Your task to perform on an android device: read, delete, or share a saved page in the chrome app Image 0: 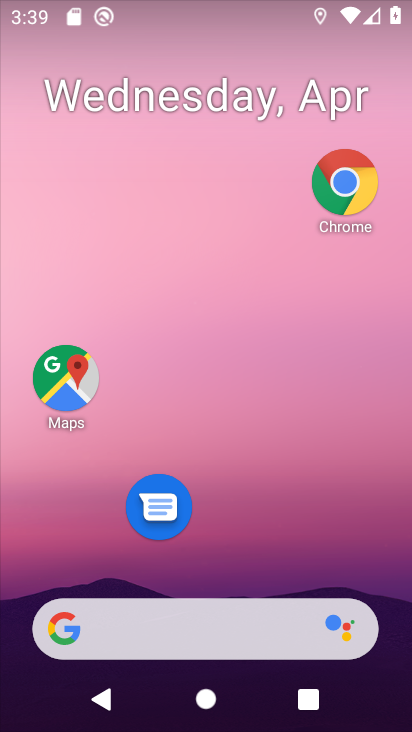
Step 0: drag from (239, 537) to (282, 168)
Your task to perform on an android device: read, delete, or share a saved page in the chrome app Image 1: 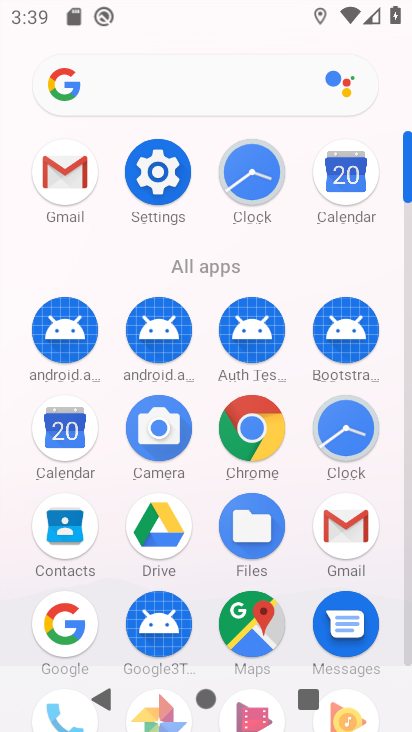
Step 1: click (262, 424)
Your task to perform on an android device: read, delete, or share a saved page in the chrome app Image 2: 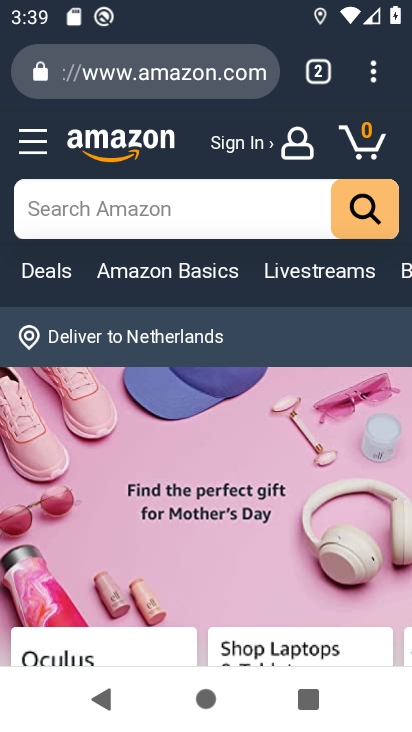
Step 2: click (377, 84)
Your task to perform on an android device: read, delete, or share a saved page in the chrome app Image 3: 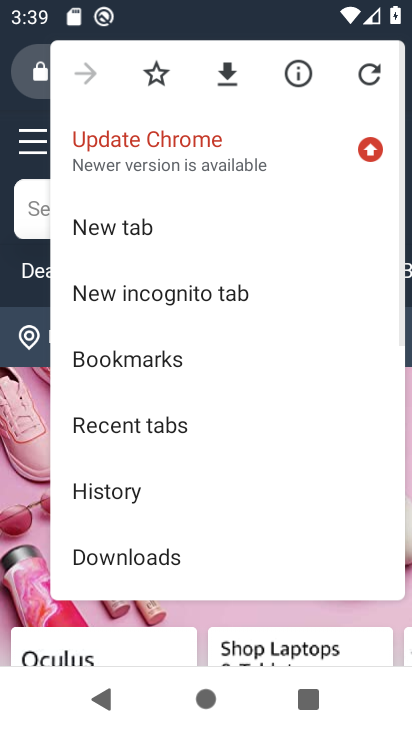
Step 3: drag from (133, 499) to (152, 405)
Your task to perform on an android device: read, delete, or share a saved page in the chrome app Image 4: 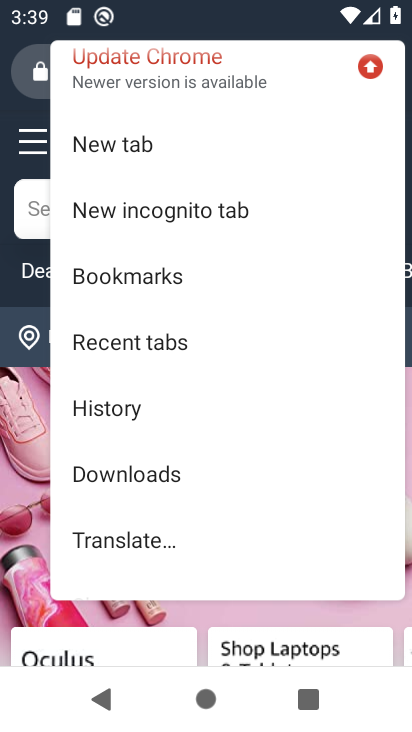
Step 4: click (136, 484)
Your task to perform on an android device: read, delete, or share a saved page in the chrome app Image 5: 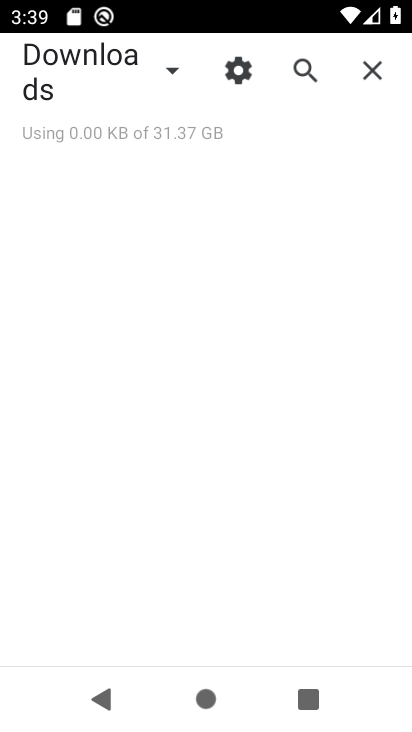
Step 5: task complete